Your task to perform on an android device: Open settings Image 0: 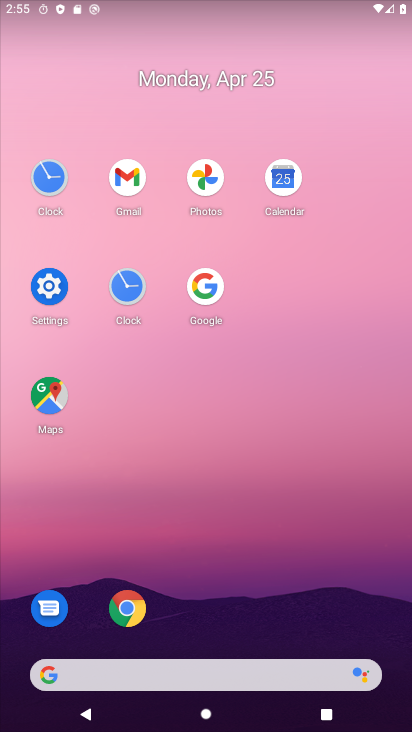
Step 0: click (47, 281)
Your task to perform on an android device: Open settings Image 1: 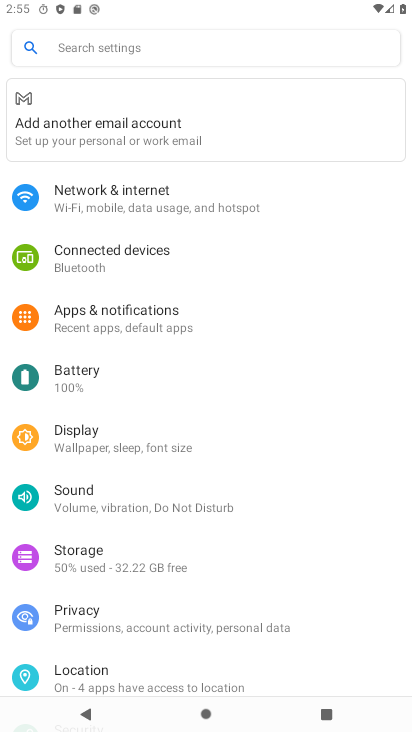
Step 1: task complete